Your task to perform on an android device: Add razer blade to the cart on walmart, then select checkout. Image 0: 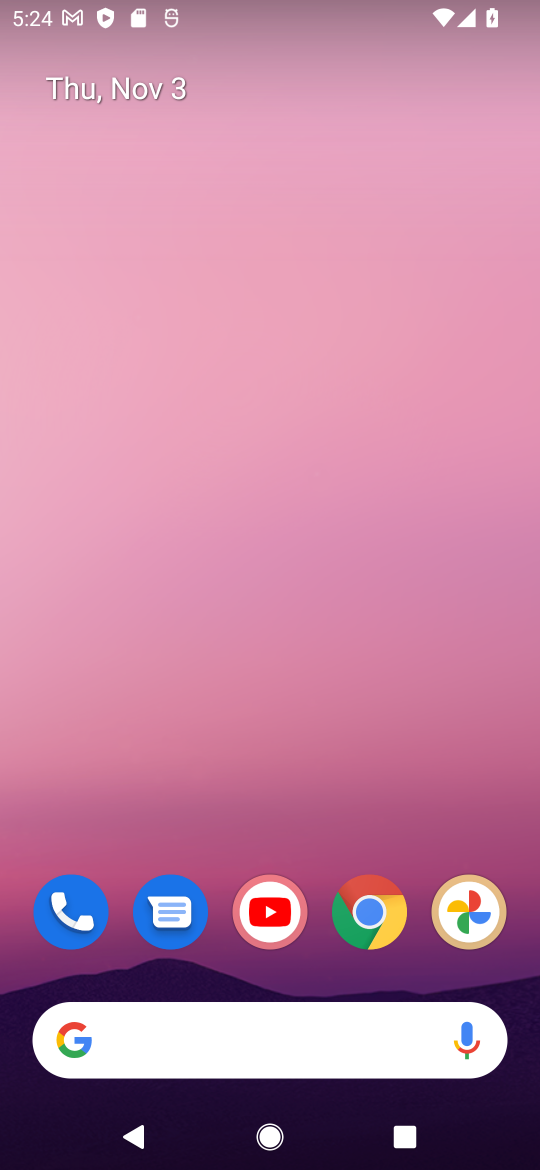
Step 0: click (381, 897)
Your task to perform on an android device: Add razer blade to the cart on walmart, then select checkout. Image 1: 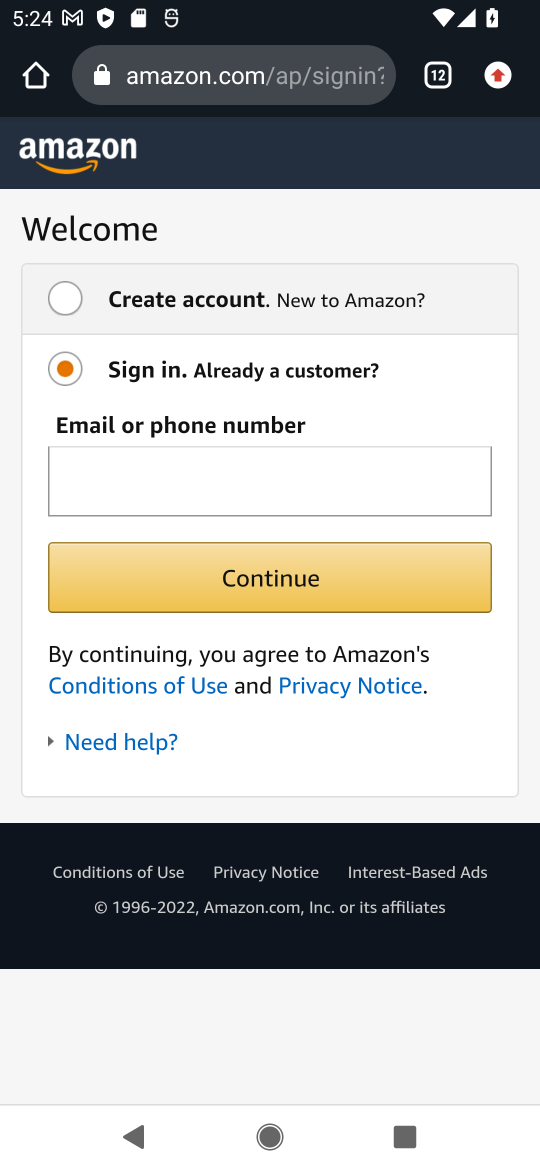
Step 1: click (431, 65)
Your task to perform on an android device: Add razer blade to the cart on walmart, then select checkout. Image 2: 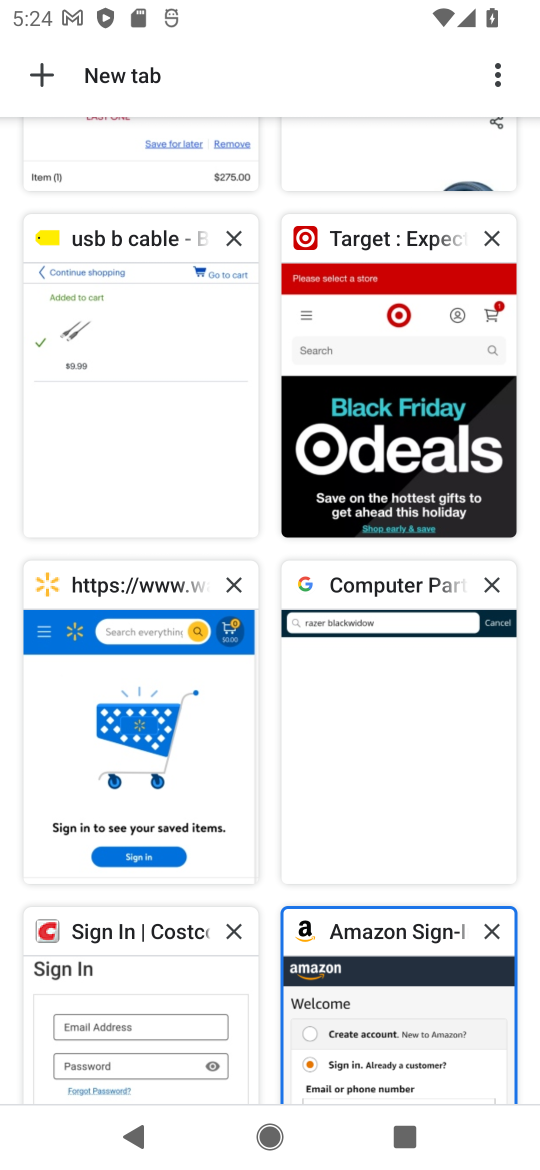
Step 2: click (105, 675)
Your task to perform on an android device: Add razer blade to the cart on walmart, then select checkout. Image 3: 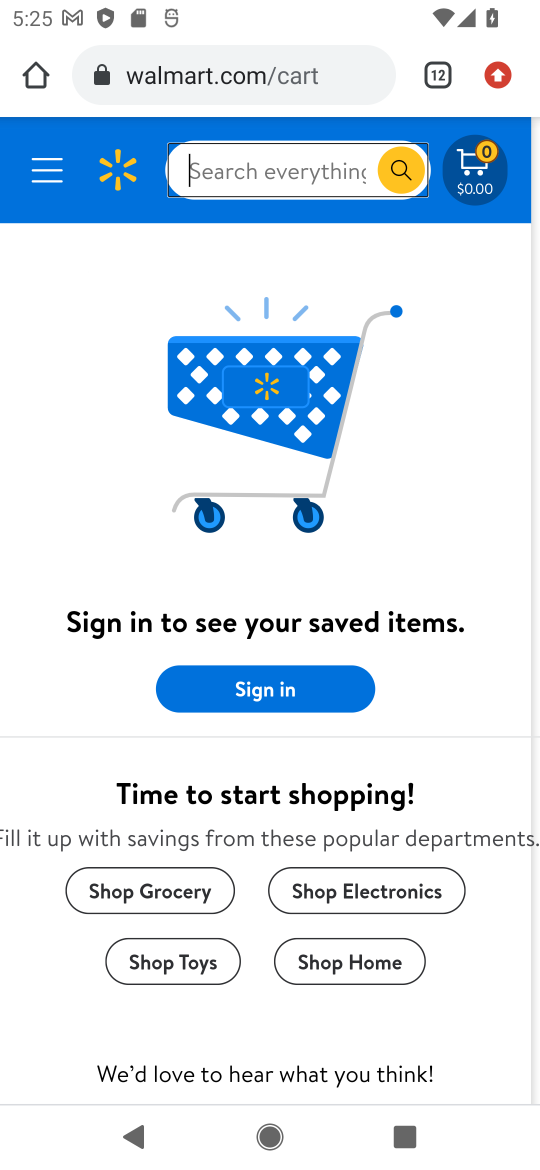
Step 3: click (255, 165)
Your task to perform on an android device: Add razer blade to the cart on walmart, then select checkout. Image 4: 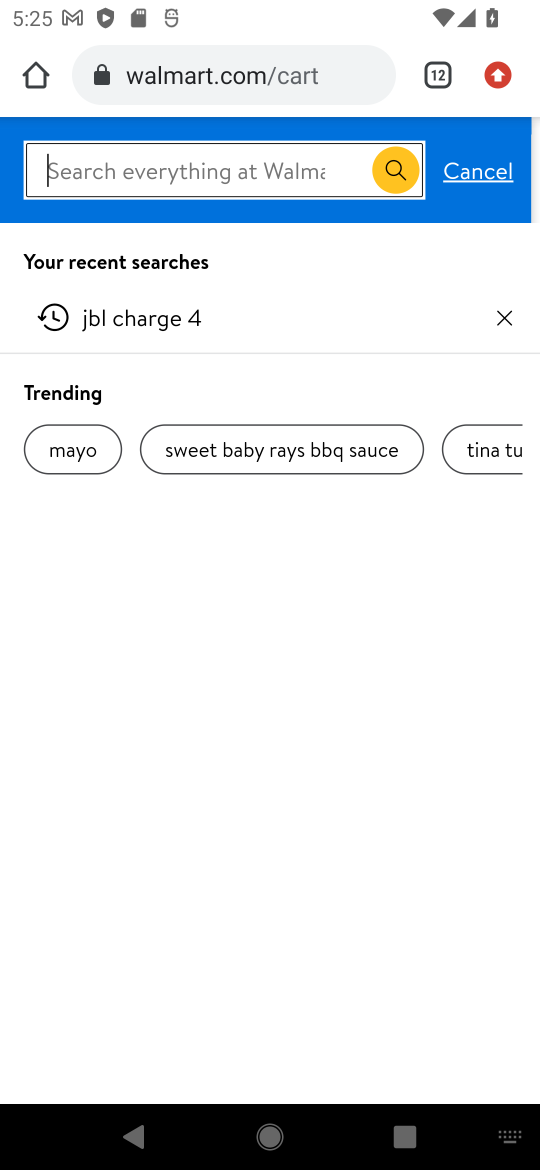
Step 4: click (140, 184)
Your task to perform on an android device: Add razer blade to the cart on walmart, then select checkout. Image 5: 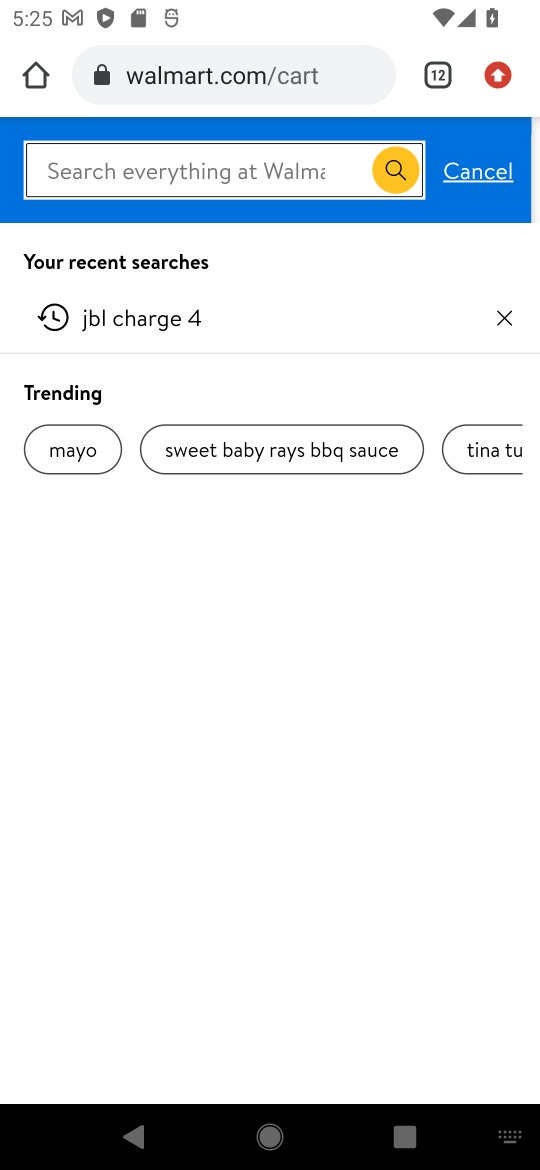
Step 5: type " razer blade "
Your task to perform on an android device: Add razer blade to the cart on walmart, then select checkout. Image 6: 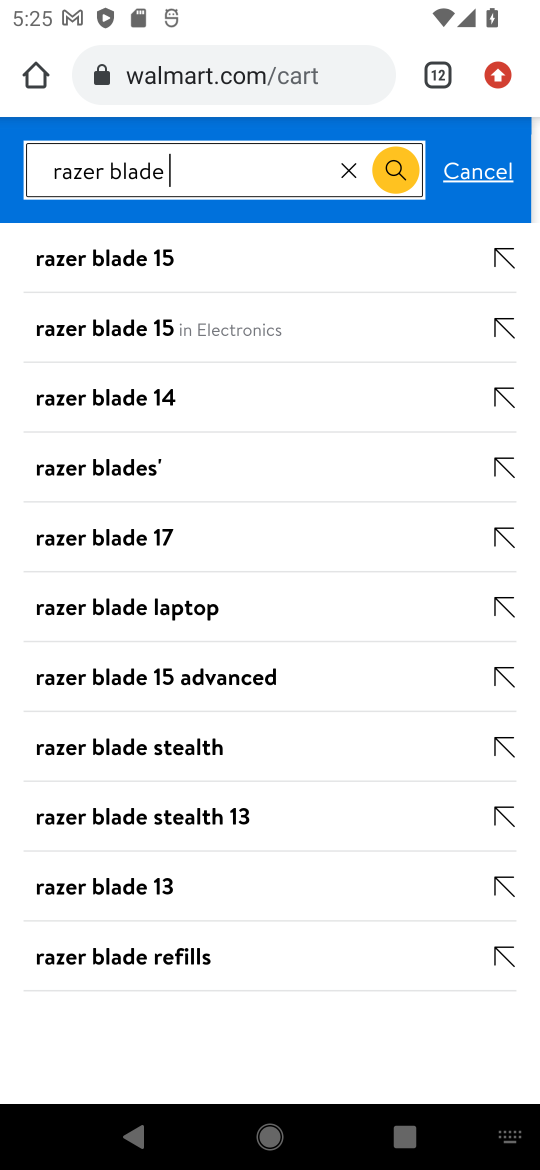
Step 6: click (317, 250)
Your task to perform on an android device: Add razer blade to the cart on walmart, then select checkout. Image 7: 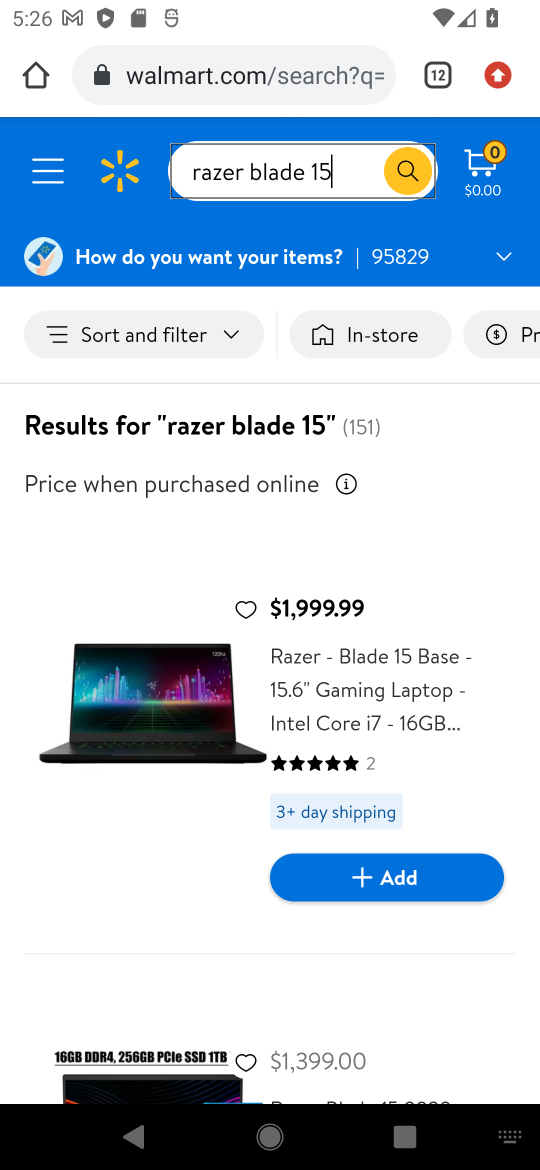
Step 7: click (425, 866)
Your task to perform on an android device: Add razer blade to the cart on walmart, then select checkout. Image 8: 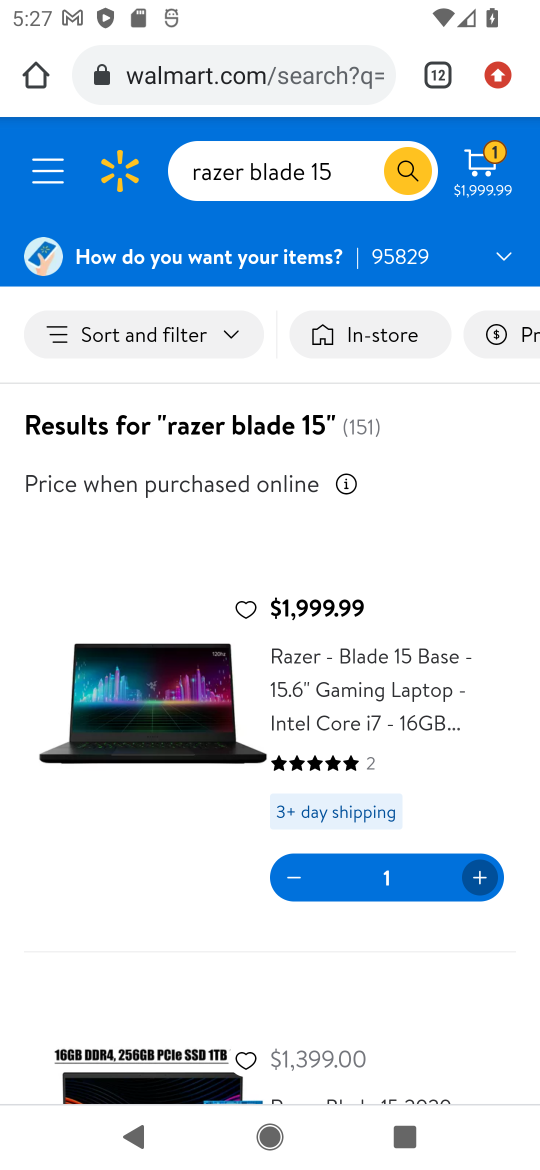
Step 8: drag from (229, 746) to (298, 550)
Your task to perform on an android device: Add razer blade to the cart on walmart, then select checkout. Image 9: 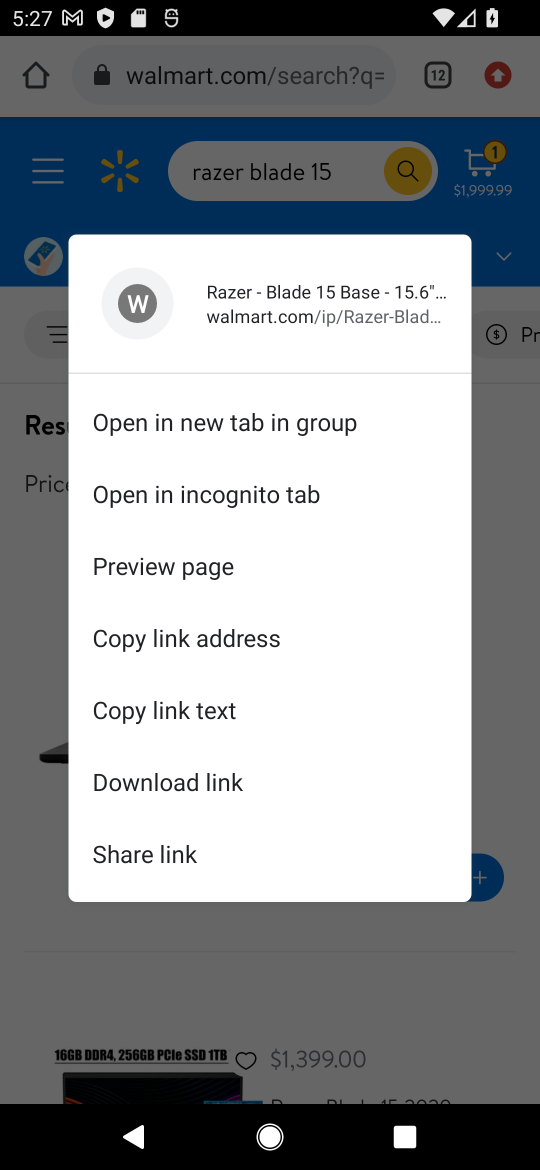
Step 9: click (430, 1031)
Your task to perform on an android device: Add razer blade to the cart on walmart, then select checkout. Image 10: 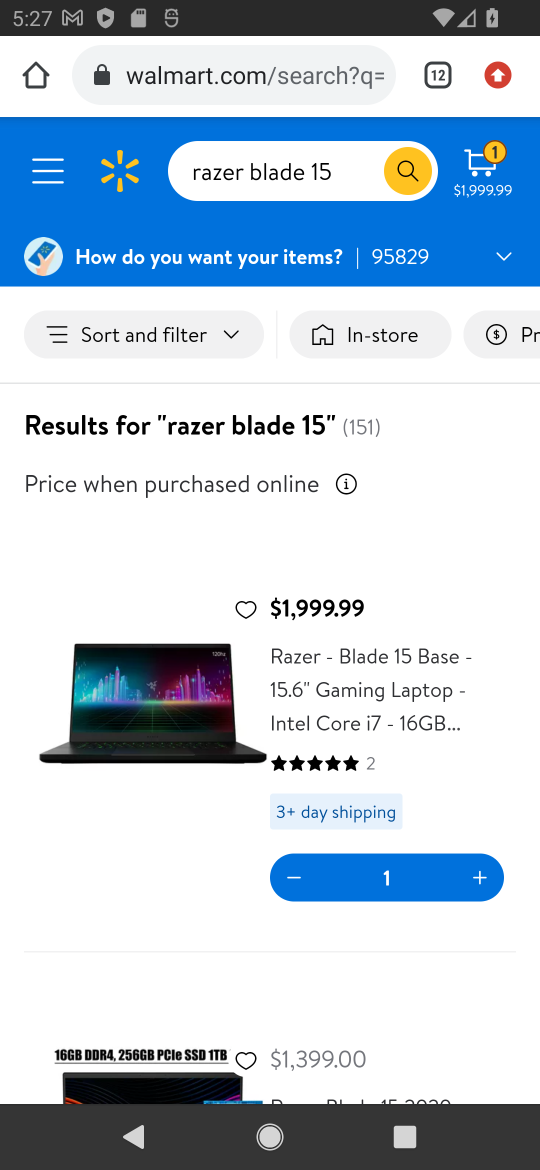
Step 10: task complete